Your task to perform on an android device: check data usage Image 0: 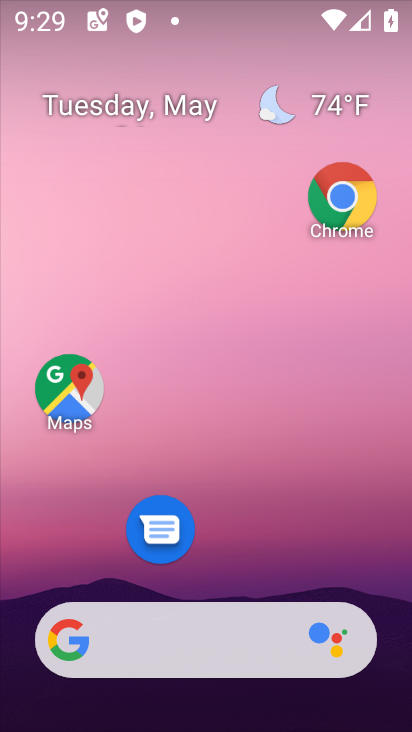
Step 0: drag from (230, 555) to (184, 3)
Your task to perform on an android device: check data usage Image 1: 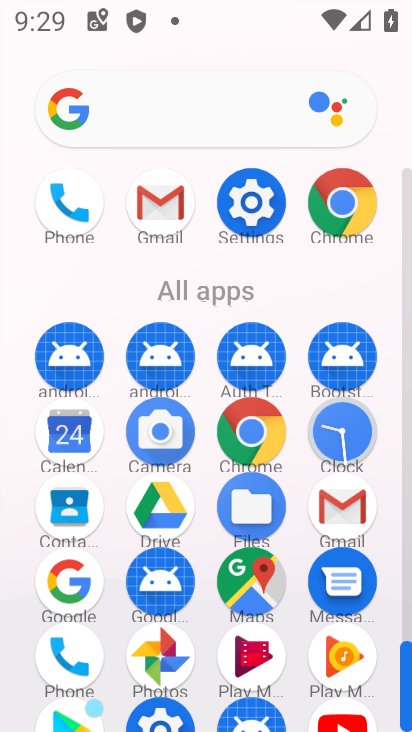
Step 1: click (258, 205)
Your task to perform on an android device: check data usage Image 2: 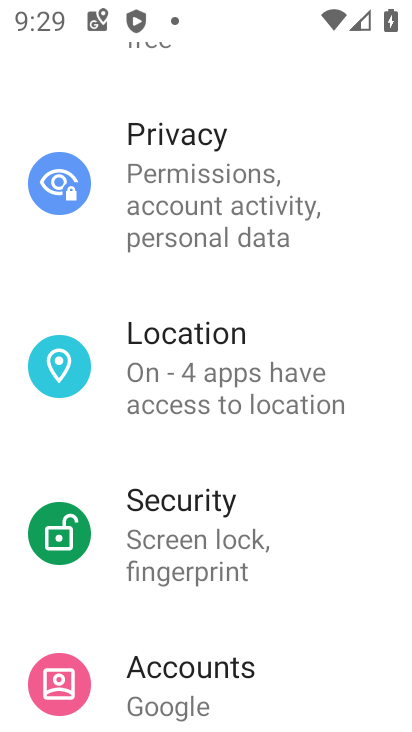
Step 2: drag from (250, 284) to (221, 526)
Your task to perform on an android device: check data usage Image 3: 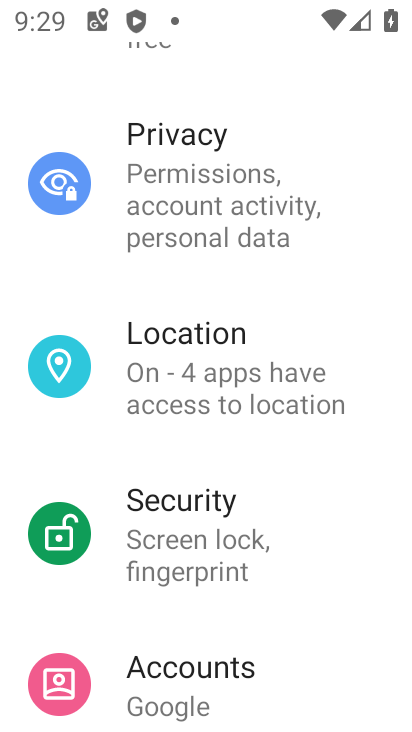
Step 3: drag from (171, 335) to (141, 554)
Your task to perform on an android device: check data usage Image 4: 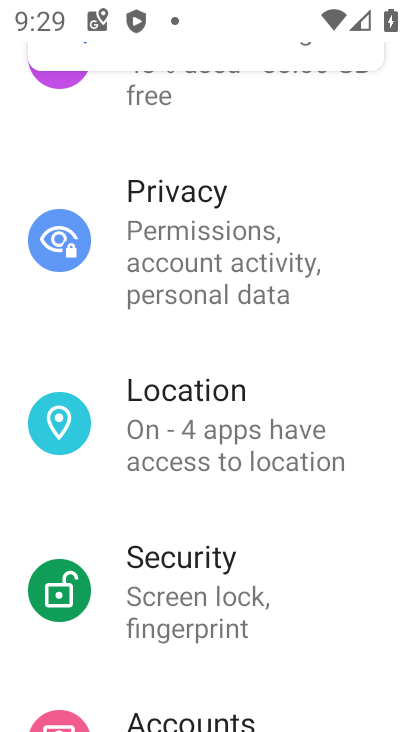
Step 4: drag from (270, 195) to (238, 533)
Your task to perform on an android device: check data usage Image 5: 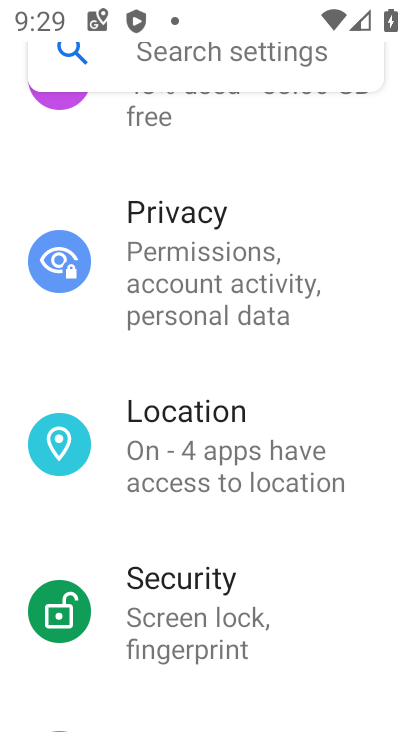
Step 5: drag from (282, 238) to (218, 618)
Your task to perform on an android device: check data usage Image 6: 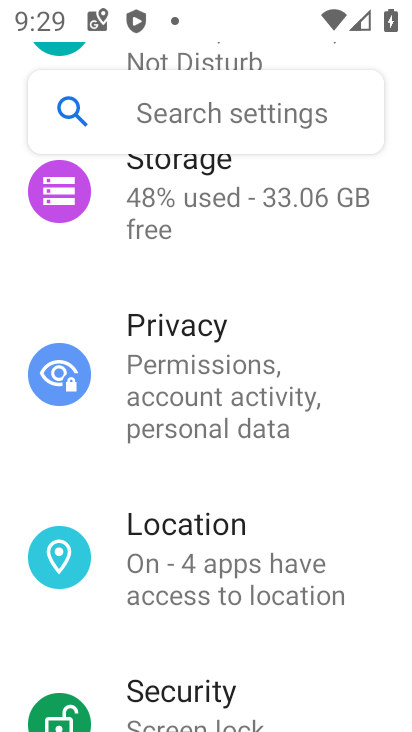
Step 6: drag from (205, 295) to (165, 604)
Your task to perform on an android device: check data usage Image 7: 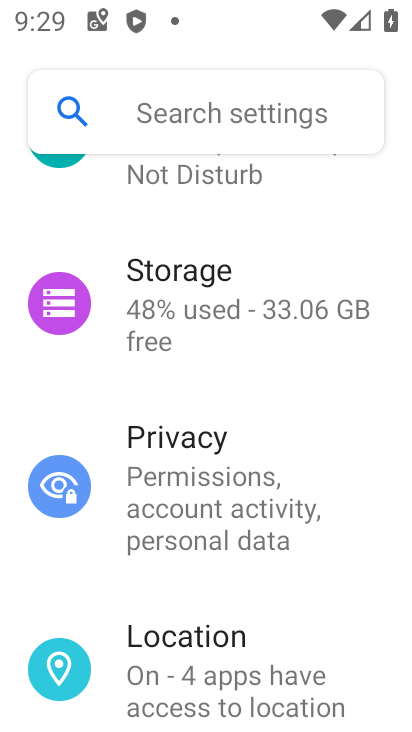
Step 7: drag from (232, 310) to (186, 538)
Your task to perform on an android device: check data usage Image 8: 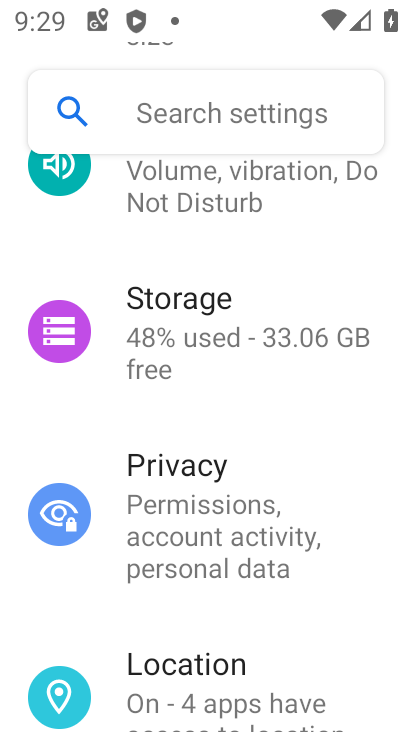
Step 8: drag from (203, 439) to (168, 624)
Your task to perform on an android device: check data usage Image 9: 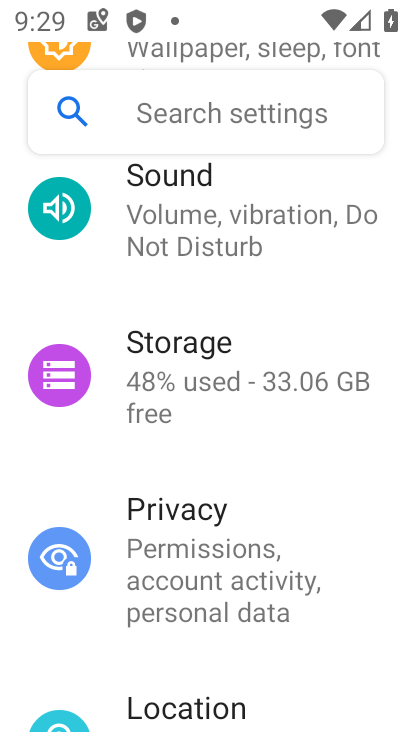
Step 9: drag from (109, 725) to (1, 610)
Your task to perform on an android device: check data usage Image 10: 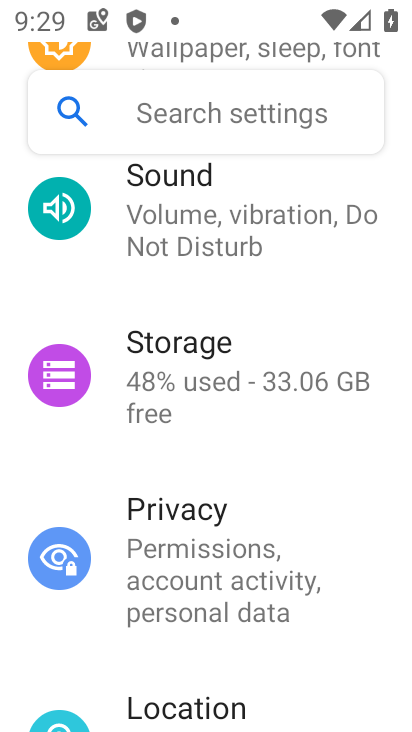
Step 10: click (168, 639)
Your task to perform on an android device: check data usage Image 11: 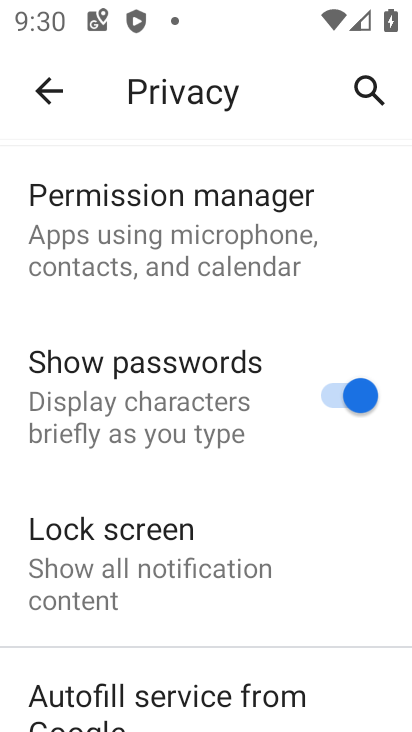
Step 11: click (48, 87)
Your task to perform on an android device: check data usage Image 12: 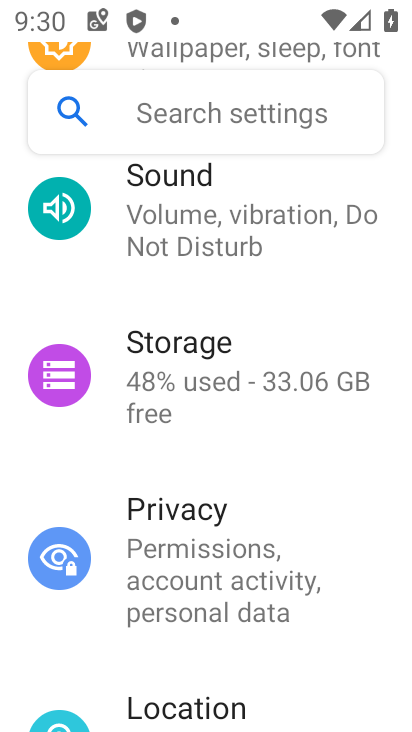
Step 12: drag from (248, 254) to (248, 553)
Your task to perform on an android device: check data usage Image 13: 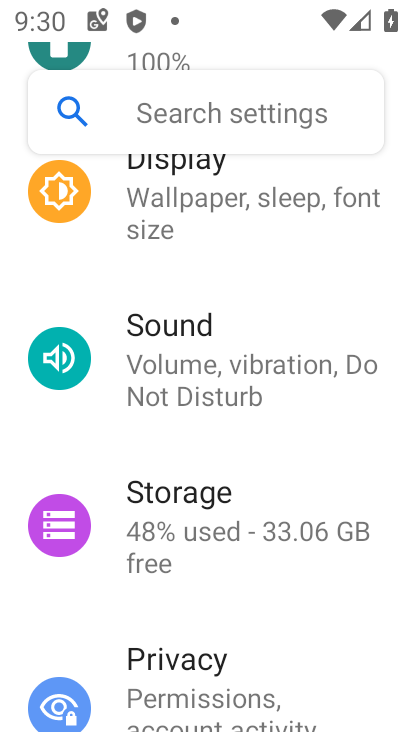
Step 13: click (207, 652)
Your task to perform on an android device: check data usage Image 14: 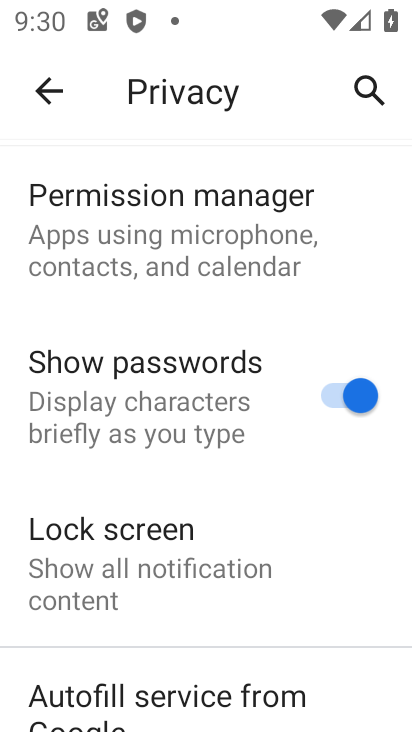
Step 14: click (53, 84)
Your task to perform on an android device: check data usage Image 15: 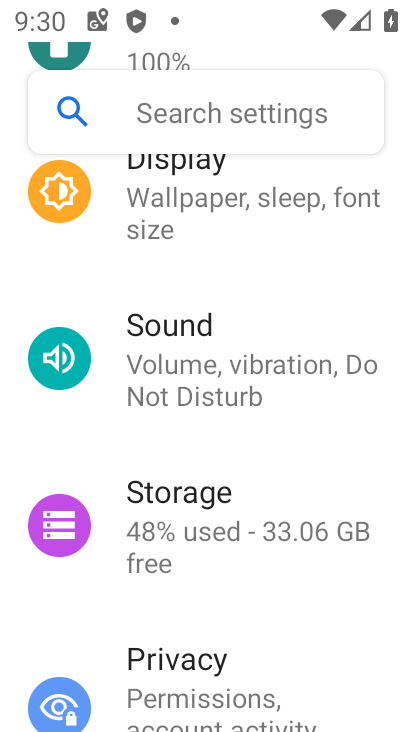
Step 15: drag from (249, 261) to (240, 693)
Your task to perform on an android device: check data usage Image 16: 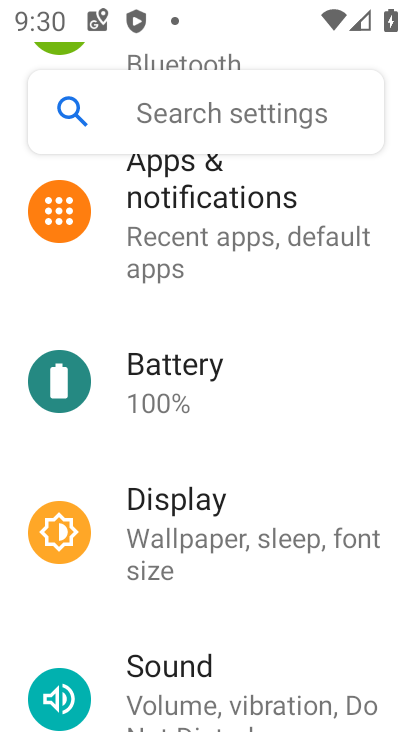
Step 16: drag from (226, 454) to (216, 620)
Your task to perform on an android device: check data usage Image 17: 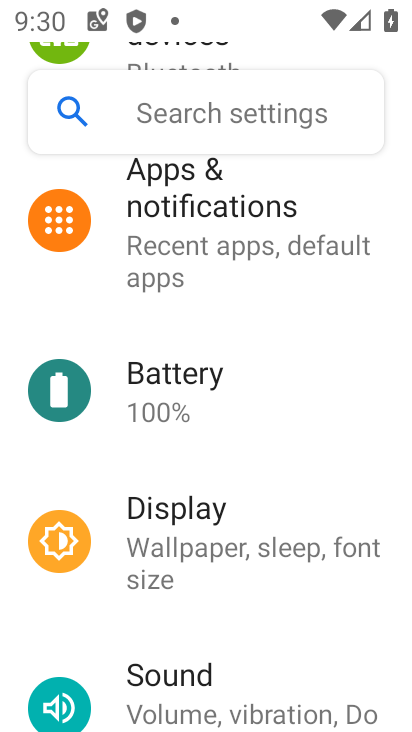
Step 17: drag from (235, 407) to (220, 664)
Your task to perform on an android device: check data usage Image 18: 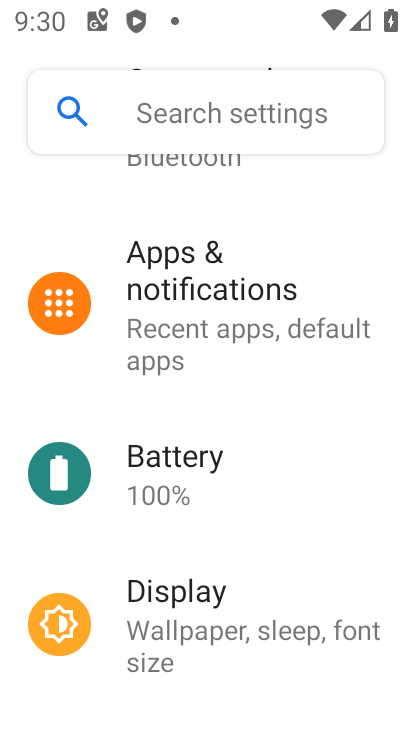
Step 18: drag from (174, 286) to (110, 609)
Your task to perform on an android device: check data usage Image 19: 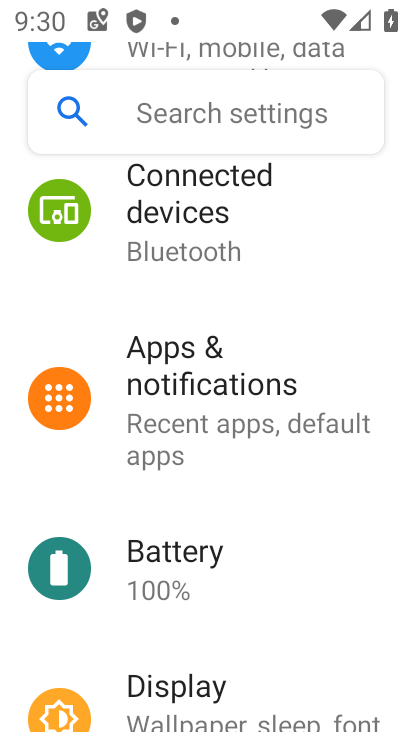
Step 19: drag from (255, 294) to (227, 505)
Your task to perform on an android device: check data usage Image 20: 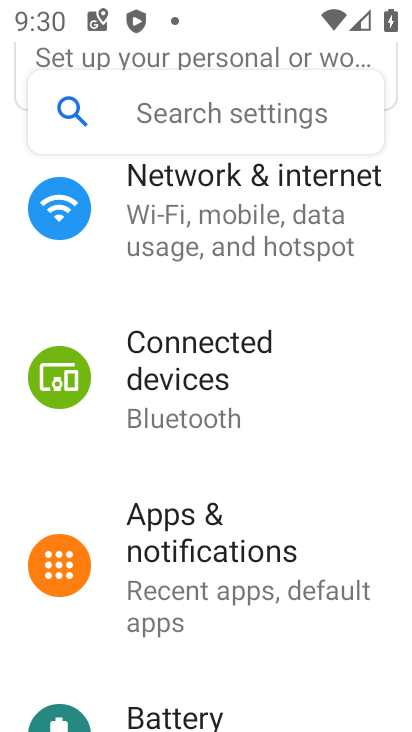
Step 20: click (233, 242)
Your task to perform on an android device: check data usage Image 21: 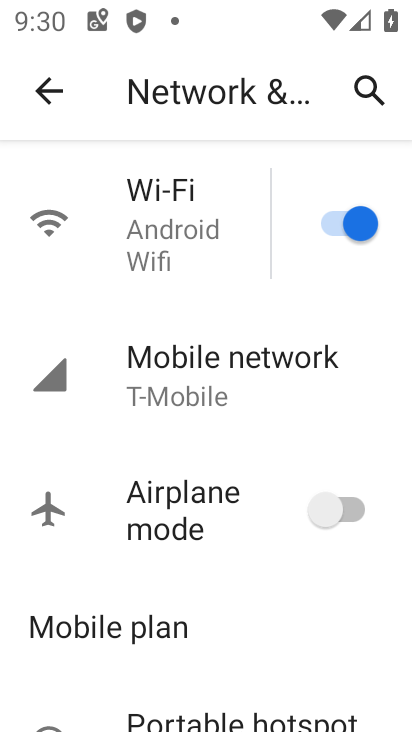
Step 21: click (207, 408)
Your task to perform on an android device: check data usage Image 22: 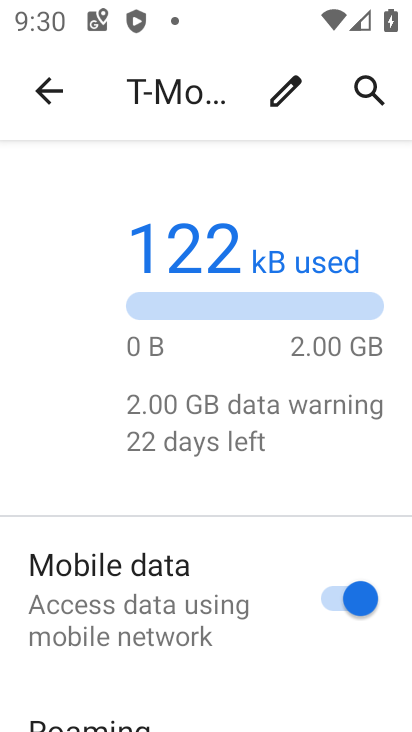
Step 22: task complete